Your task to perform on an android device: set the timer Image 0: 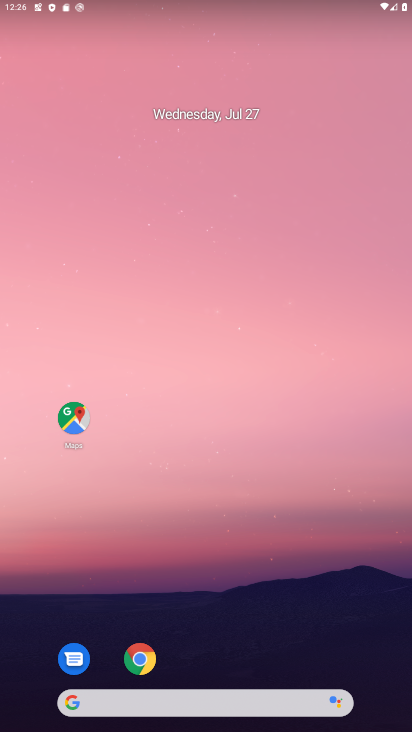
Step 0: drag from (213, 674) to (228, 80)
Your task to perform on an android device: set the timer Image 1: 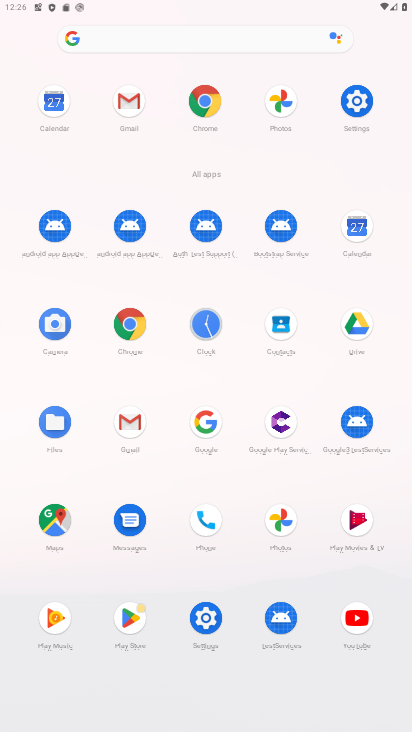
Step 1: click (202, 319)
Your task to perform on an android device: set the timer Image 2: 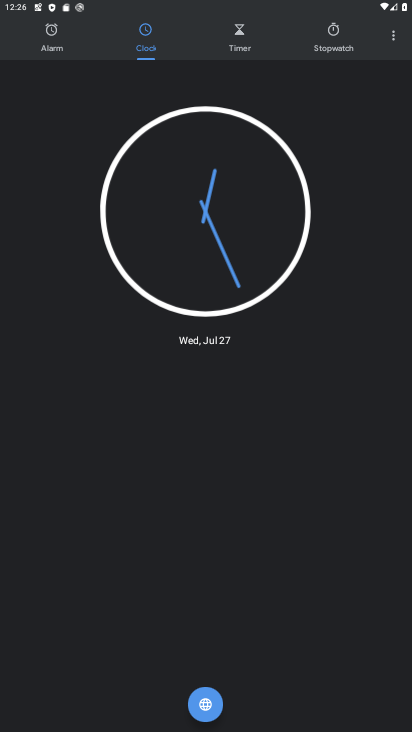
Step 2: click (242, 34)
Your task to perform on an android device: set the timer Image 3: 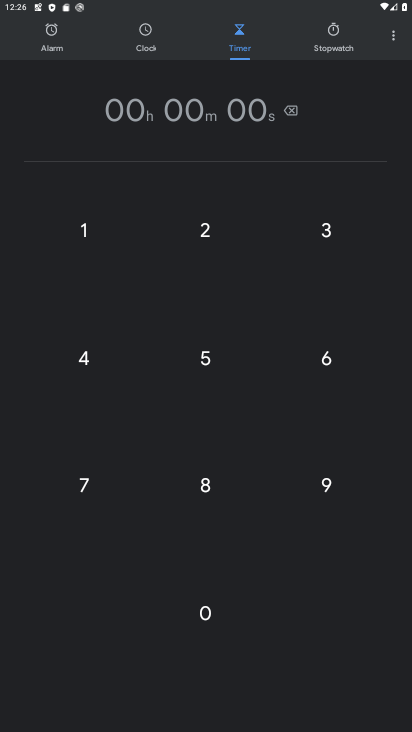
Step 3: click (321, 232)
Your task to perform on an android device: set the timer Image 4: 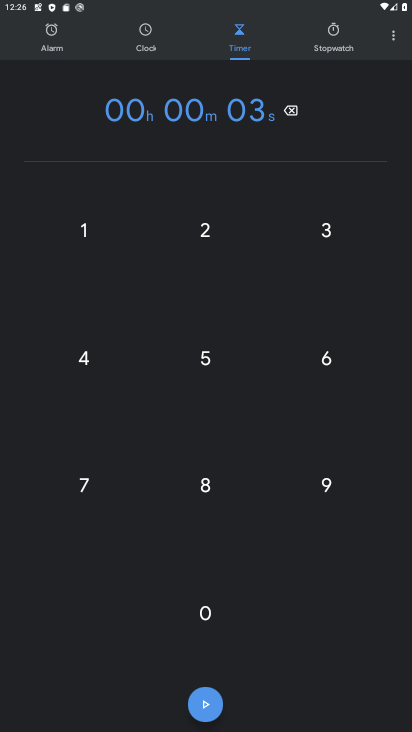
Step 4: click (196, 609)
Your task to perform on an android device: set the timer Image 5: 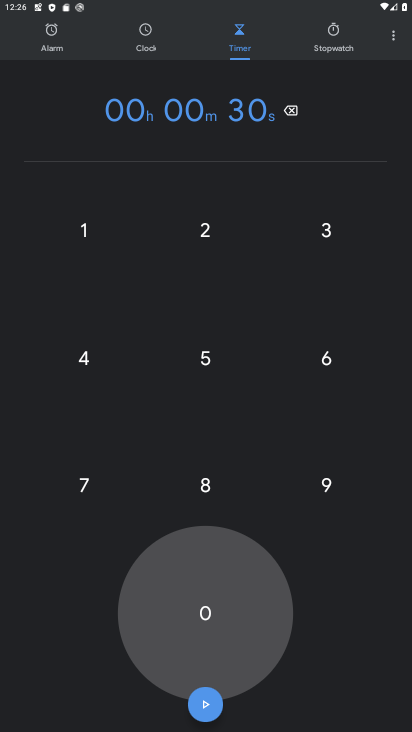
Step 5: click (196, 609)
Your task to perform on an android device: set the timer Image 6: 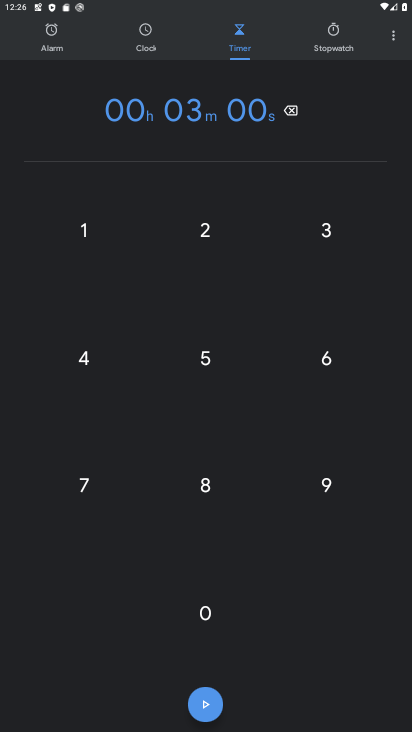
Step 6: click (196, 609)
Your task to perform on an android device: set the timer Image 7: 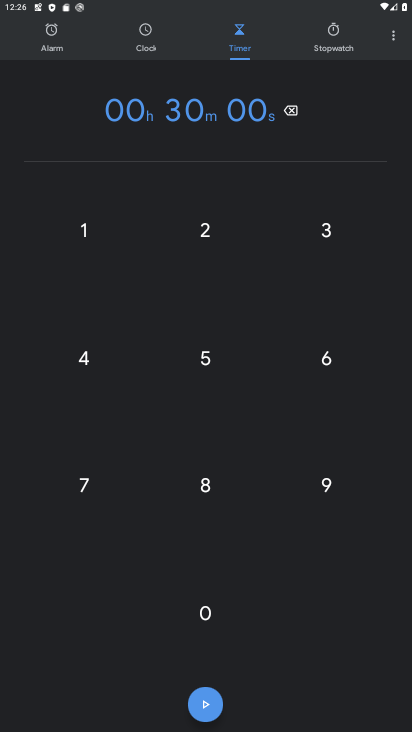
Step 7: click (200, 703)
Your task to perform on an android device: set the timer Image 8: 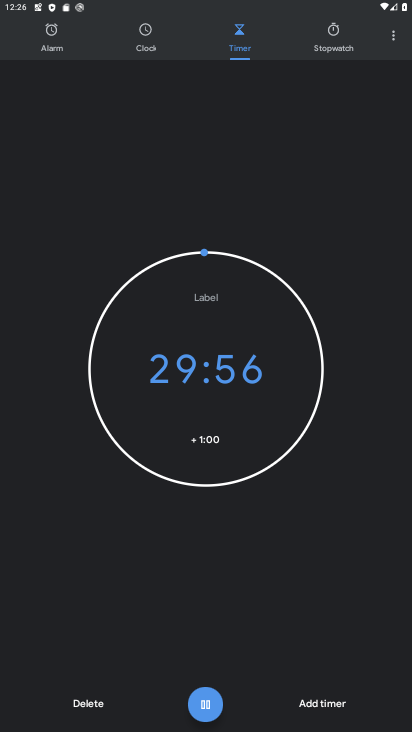
Step 8: task complete